Your task to perform on an android device: Turn off the flashlight Image 0: 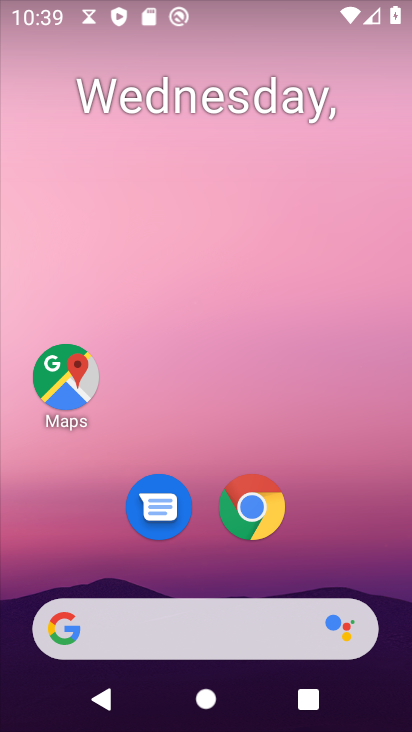
Step 0: drag from (280, 662) to (284, 148)
Your task to perform on an android device: Turn off the flashlight Image 1: 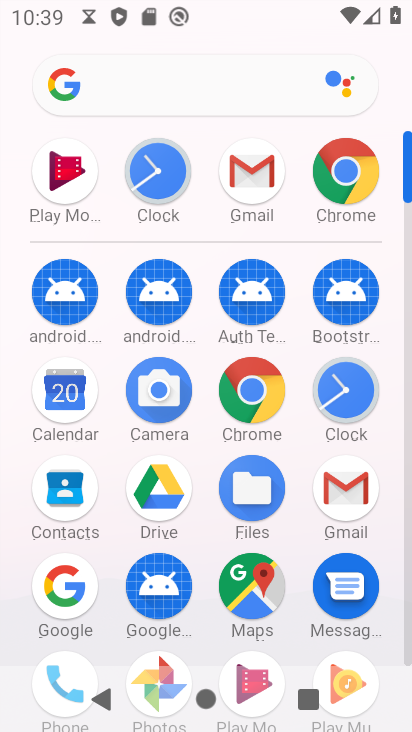
Step 1: drag from (111, 435) to (172, 255)
Your task to perform on an android device: Turn off the flashlight Image 2: 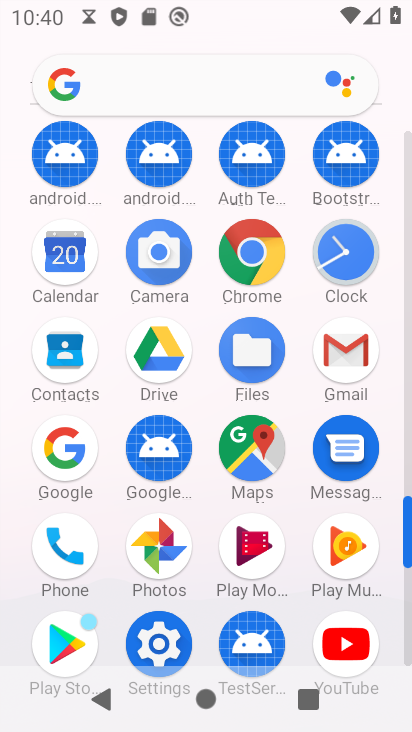
Step 2: click (176, 630)
Your task to perform on an android device: Turn off the flashlight Image 3: 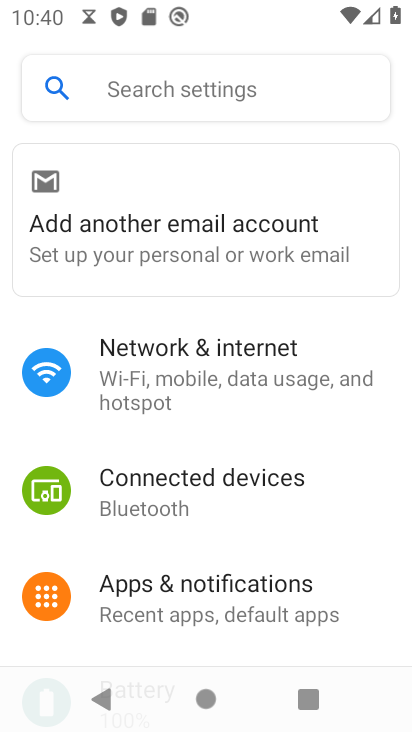
Step 3: click (197, 100)
Your task to perform on an android device: Turn off the flashlight Image 4: 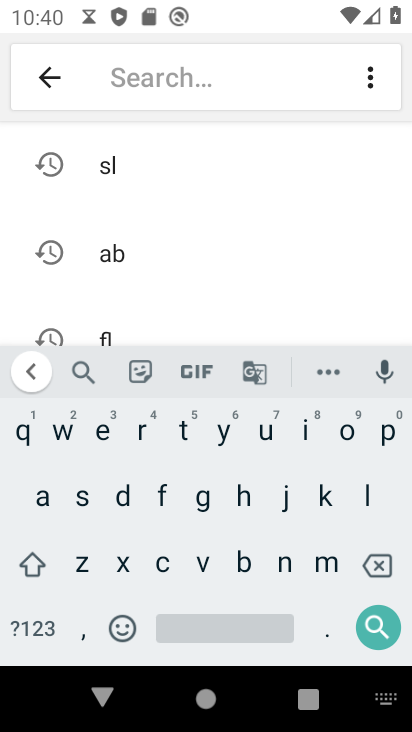
Step 4: click (159, 493)
Your task to perform on an android device: Turn off the flashlight Image 5: 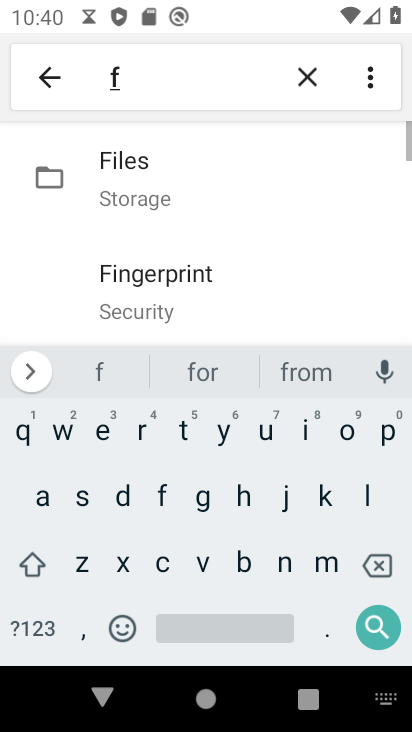
Step 5: click (366, 498)
Your task to perform on an android device: Turn off the flashlight Image 6: 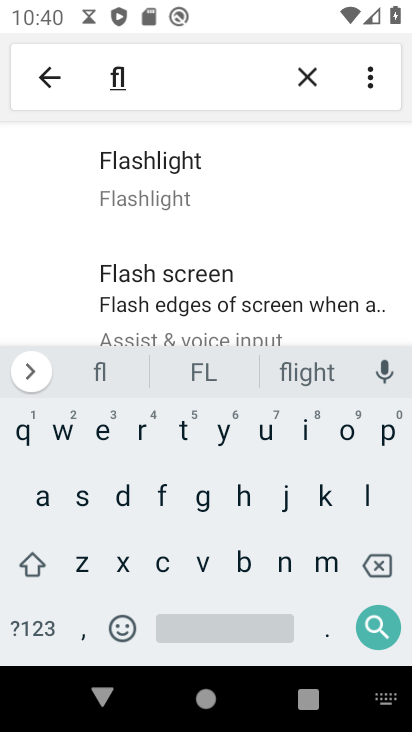
Step 6: click (209, 193)
Your task to perform on an android device: Turn off the flashlight Image 7: 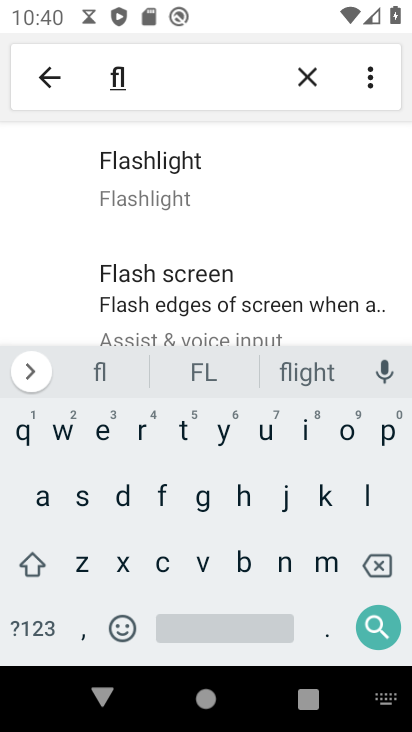
Step 7: click (209, 193)
Your task to perform on an android device: Turn off the flashlight Image 8: 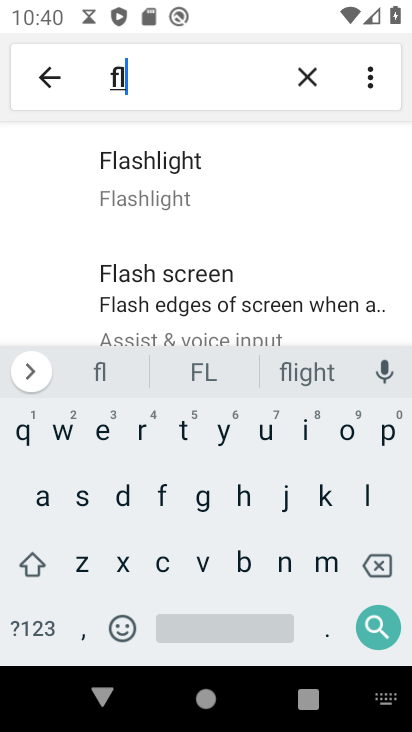
Step 8: task complete